Your task to perform on an android device: uninstall "Paramount+ | Peak Streaming" Image 0: 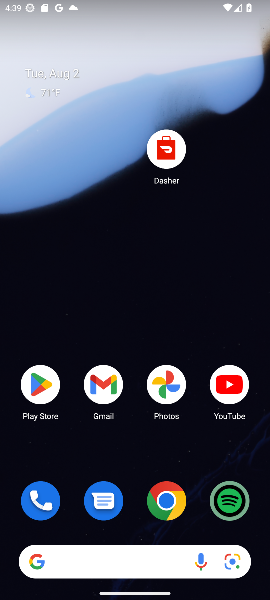
Step 0: click (38, 386)
Your task to perform on an android device: uninstall "Paramount+ | Peak Streaming" Image 1: 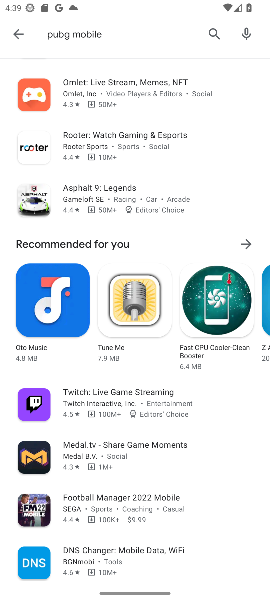
Step 1: click (216, 26)
Your task to perform on an android device: uninstall "Paramount+ | Peak Streaming" Image 2: 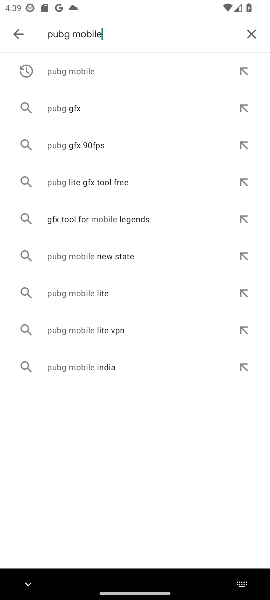
Step 2: click (253, 32)
Your task to perform on an android device: uninstall "Paramount+ | Peak Streaming" Image 3: 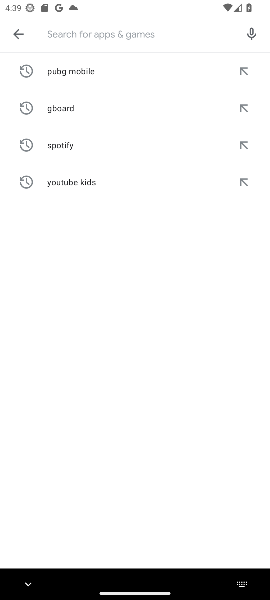
Step 3: type "Paramount+ | Peak Streaming"
Your task to perform on an android device: uninstall "Paramount+ | Peak Streaming" Image 4: 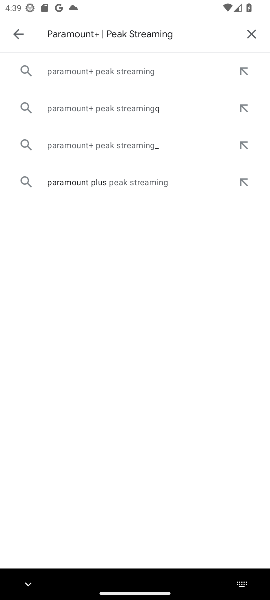
Step 4: click (79, 75)
Your task to perform on an android device: uninstall "Paramount+ | Peak Streaming" Image 5: 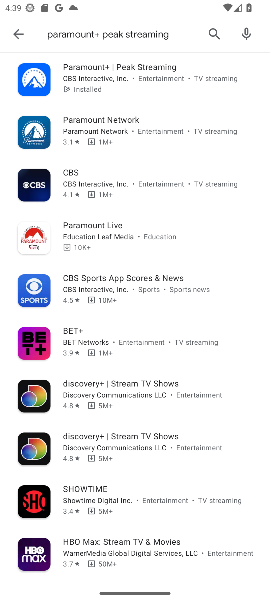
Step 5: click (79, 75)
Your task to perform on an android device: uninstall "Paramount+ | Peak Streaming" Image 6: 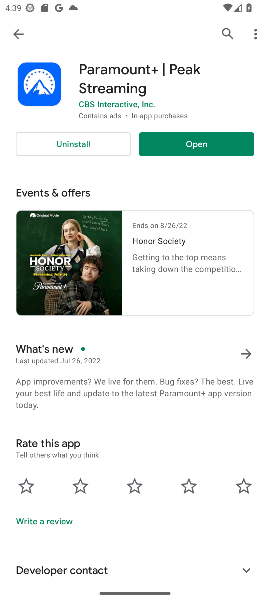
Step 6: click (64, 144)
Your task to perform on an android device: uninstall "Paramount+ | Peak Streaming" Image 7: 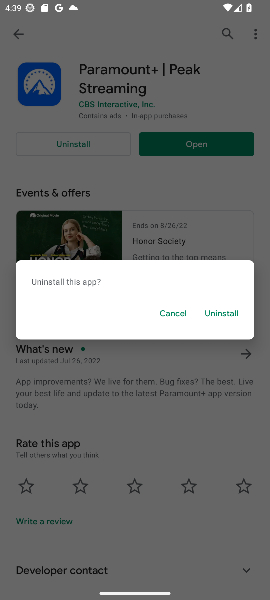
Step 7: click (234, 312)
Your task to perform on an android device: uninstall "Paramount+ | Peak Streaming" Image 8: 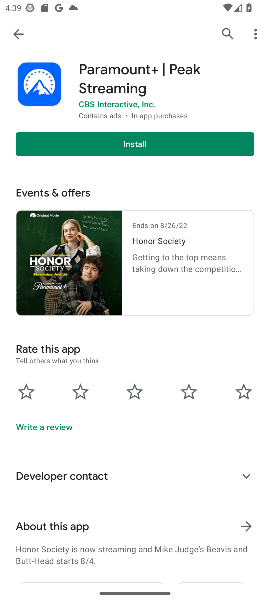
Step 8: task complete